Your task to perform on an android device: turn off data saver in the chrome app Image 0: 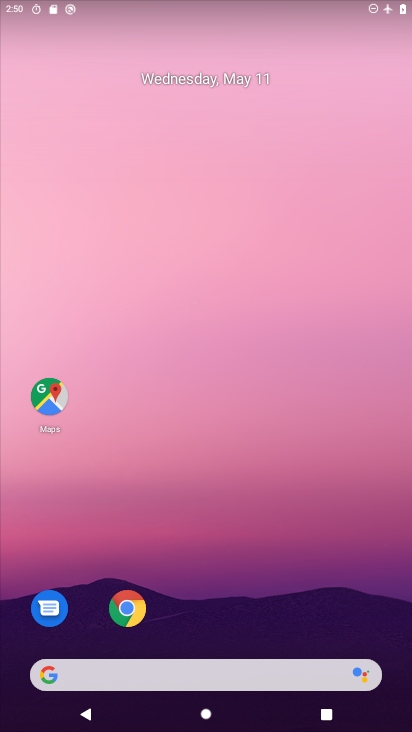
Step 0: click (112, 606)
Your task to perform on an android device: turn off data saver in the chrome app Image 1: 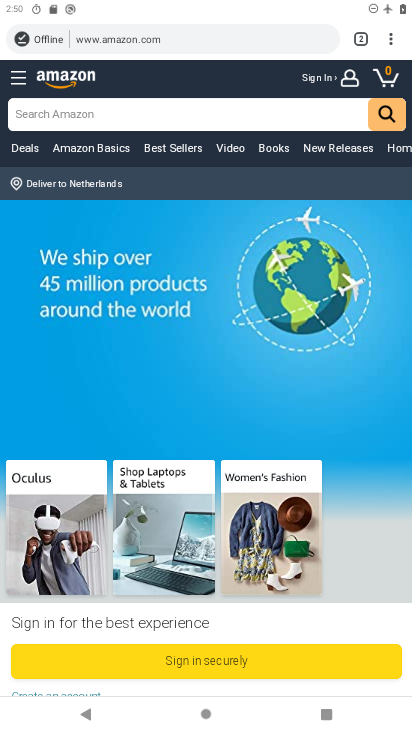
Step 1: click (400, 45)
Your task to perform on an android device: turn off data saver in the chrome app Image 2: 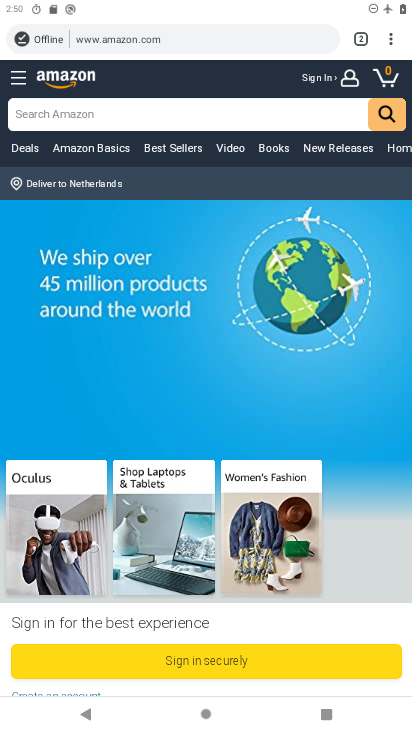
Step 2: click (387, 35)
Your task to perform on an android device: turn off data saver in the chrome app Image 3: 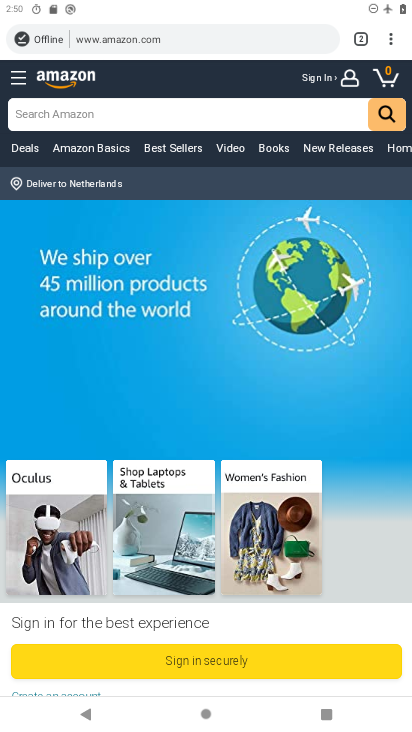
Step 3: click (387, 35)
Your task to perform on an android device: turn off data saver in the chrome app Image 4: 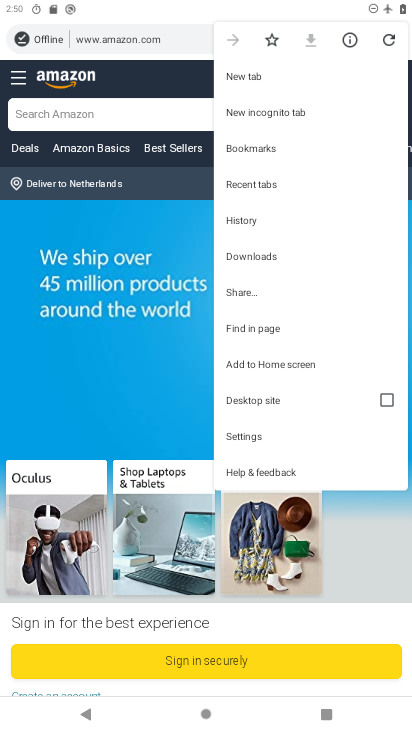
Step 4: click (233, 434)
Your task to perform on an android device: turn off data saver in the chrome app Image 5: 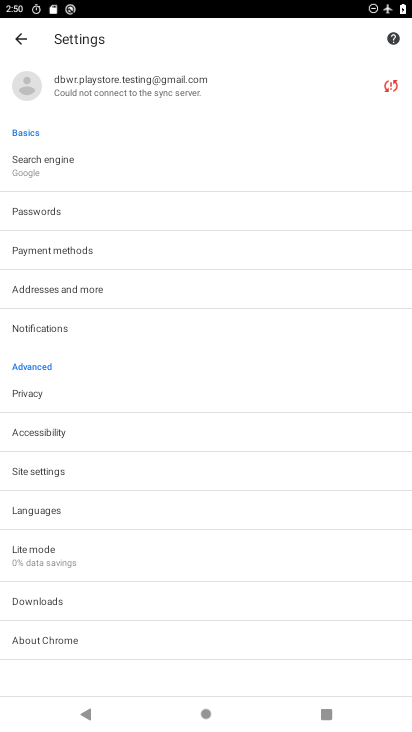
Step 5: click (67, 472)
Your task to perform on an android device: turn off data saver in the chrome app Image 6: 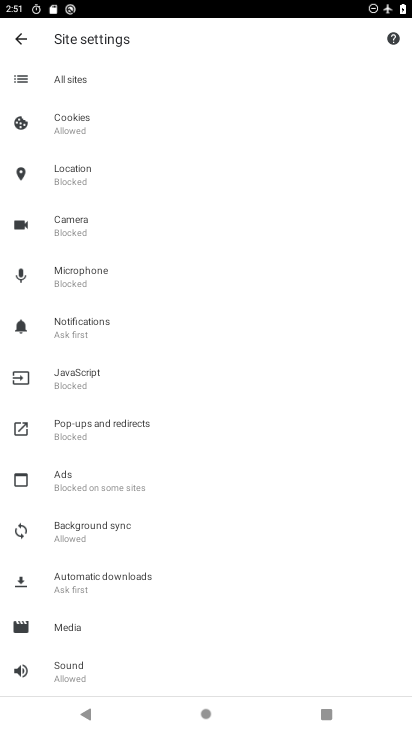
Step 6: drag from (282, 609) to (224, 322)
Your task to perform on an android device: turn off data saver in the chrome app Image 7: 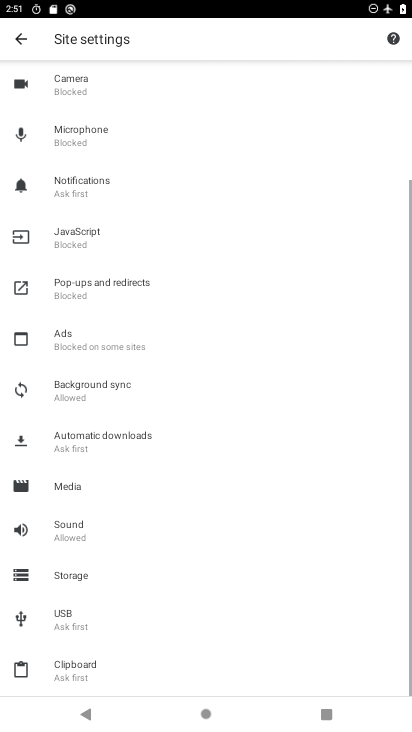
Step 7: drag from (159, 573) to (173, 342)
Your task to perform on an android device: turn off data saver in the chrome app Image 8: 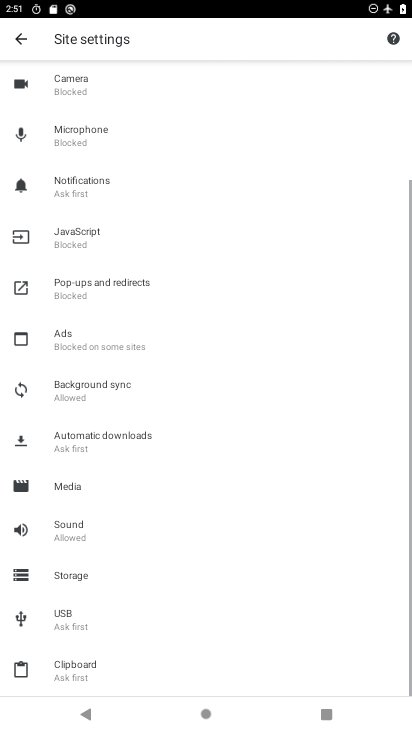
Step 8: drag from (241, 172) to (181, 587)
Your task to perform on an android device: turn off data saver in the chrome app Image 9: 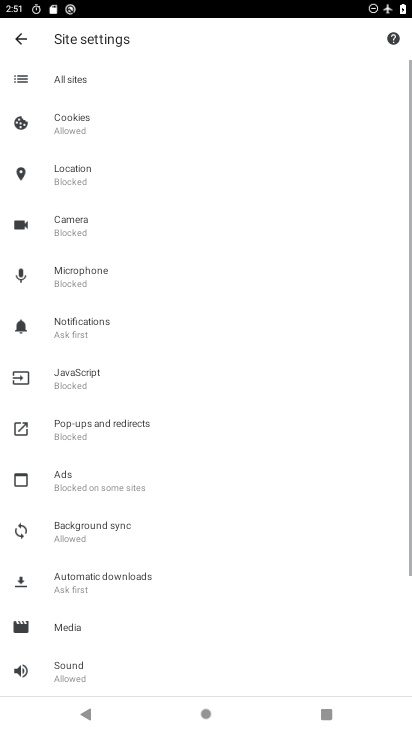
Step 9: drag from (294, 245) to (252, 587)
Your task to perform on an android device: turn off data saver in the chrome app Image 10: 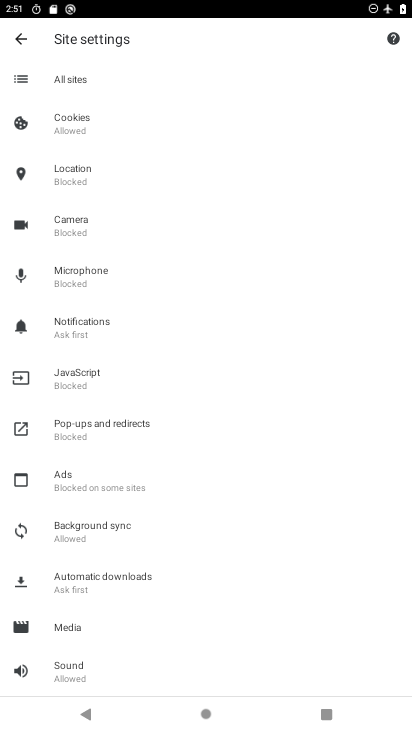
Step 10: click (34, 41)
Your task to perform on an android device: turn off data saver in the chrome app Image 11: 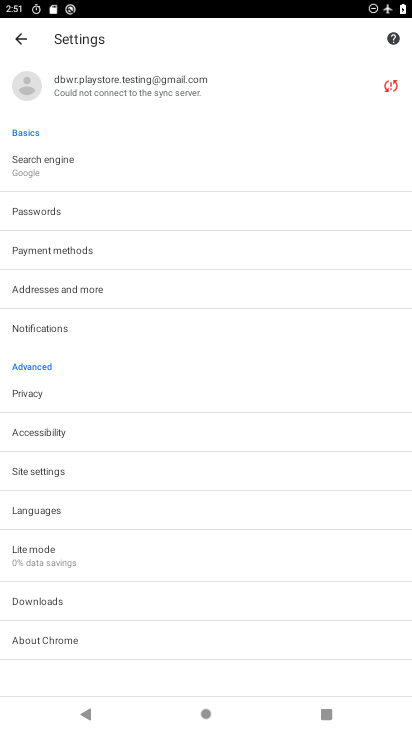
Step 11: click (50, 428)
Your task to perform on an android device: turn off data saver in the chrome app Image 12: 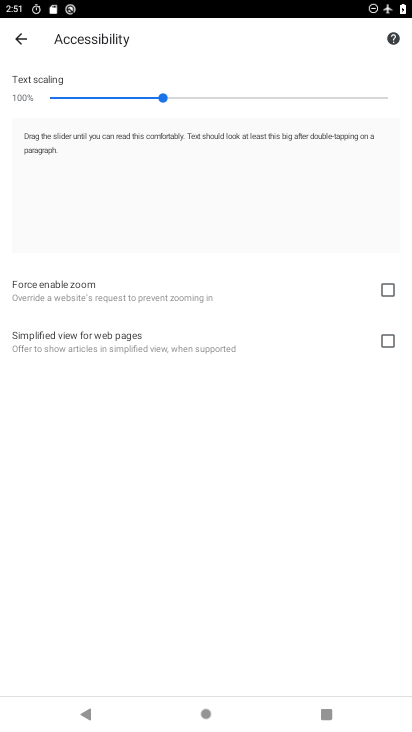
Step 12: click (18, 46)
Your task to perform on an android device: turn off data saver in the chrome app Image 13: 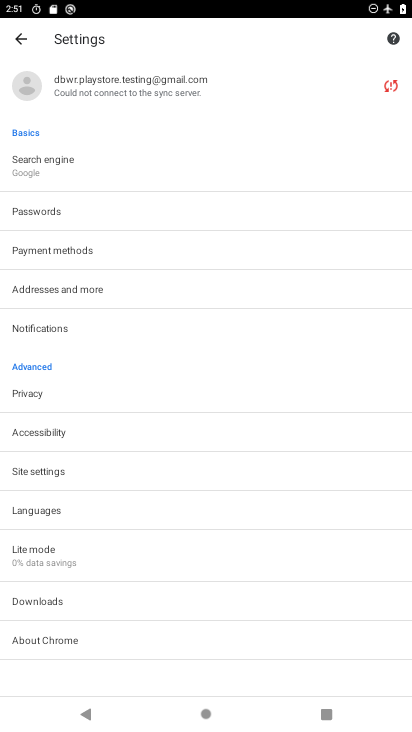
Step 13: click (113, 383)
Your task to perform on an android device: turn off data saver in the chrome app Image 14: 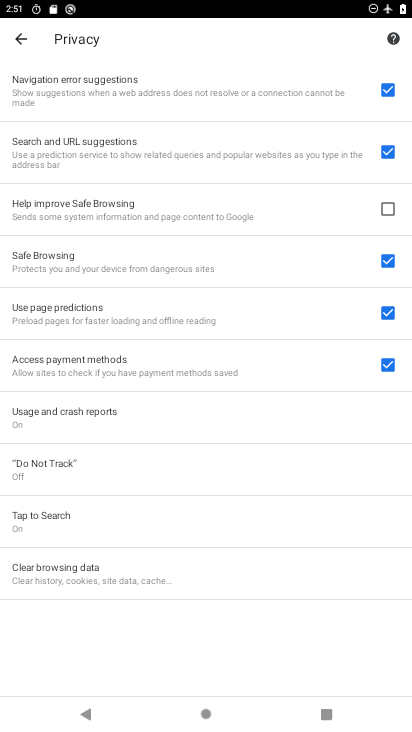
Step 14: click (26, 43)
Your task to perform on an android device: turn off data saver in the chrome app Image 15: 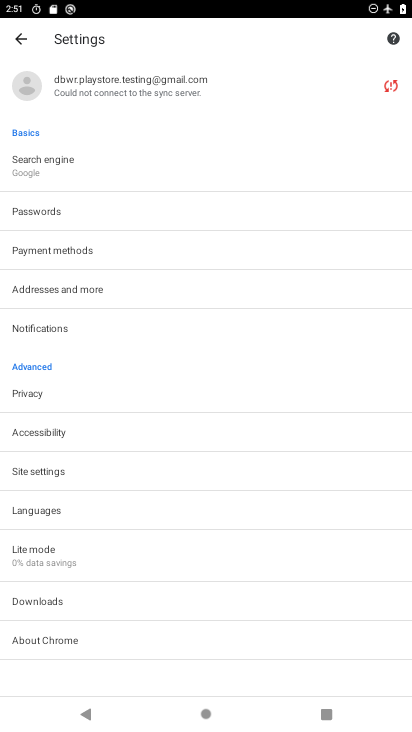
Step 15: drag from (108, 642) to (132, 220)
Your task to perform on an android device: turn off data saver in the chrome app Image 16: 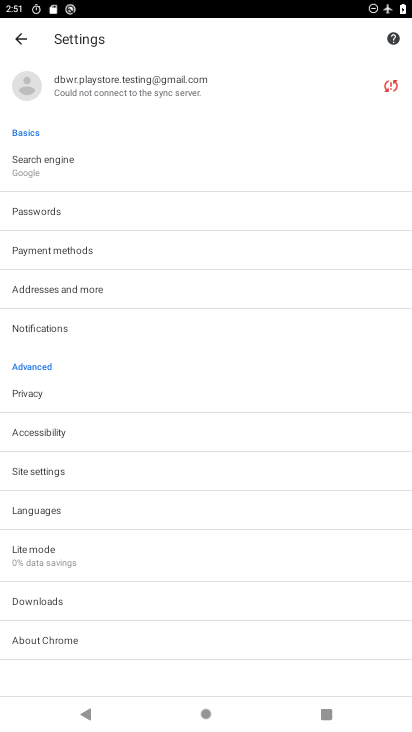
Step 16: click (28, 32)
Your task to perform on an android device: turn off data saver in the chrome app Image 17: 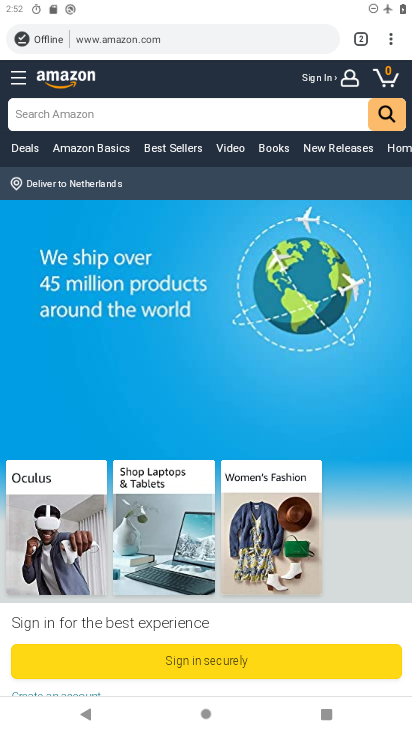
Step 17: task complete